Your task to perform on an android device: turn off sleep mode Image 0: 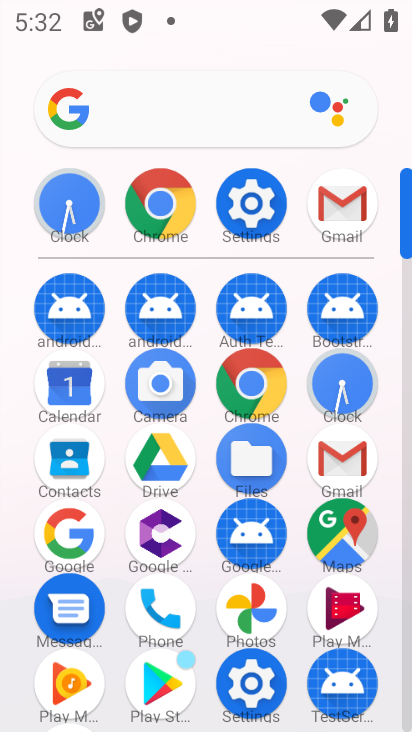
Step 0: drag from (281, 619) to (282, 310)
Your task to perform on an android device: turn off sleep mode Image 1: 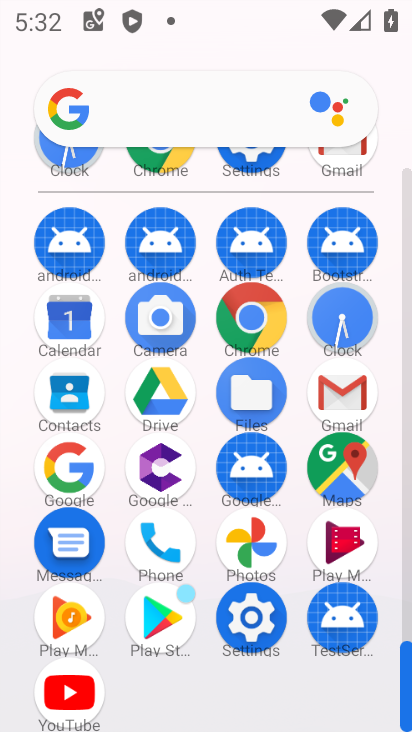
Step 1: click (263, 640)
Your task to perform on an android device: turn off sleep mode Image 2: 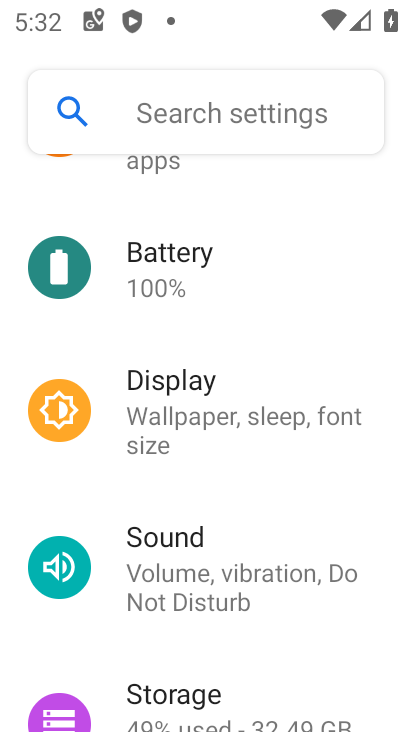
Step 2: task complete